Your task to perform on an android device: Search for sushi restaurants on Maps Image 0: 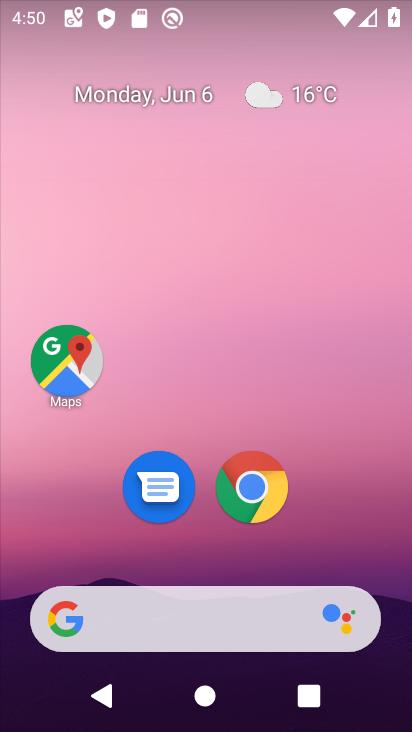
Step 0: click (73, 367)
Your task to perform on an android device: Search for sushi restaurants on Maps Image 1: 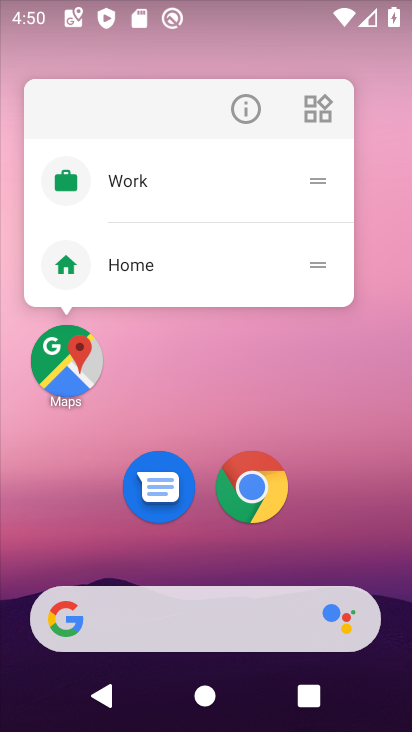
Step 1: click (73, 367)
Your task to perform on an android device: Search for sushi restaurants on Maps Image 2: 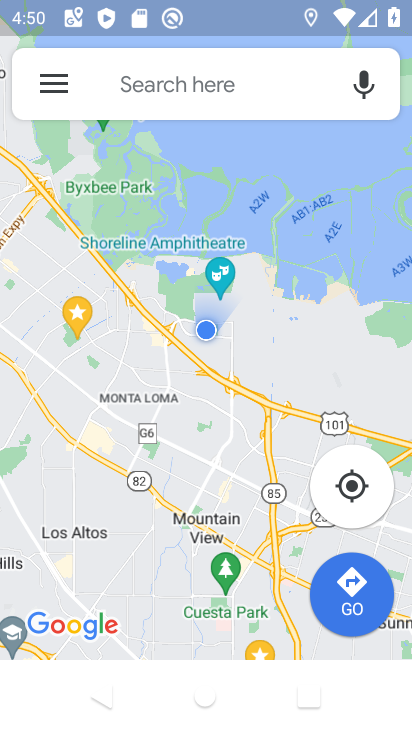
Step 2: click (199, 96)
Your task to perform on an android device: Search for sushi restaurants on Maps Image 3: 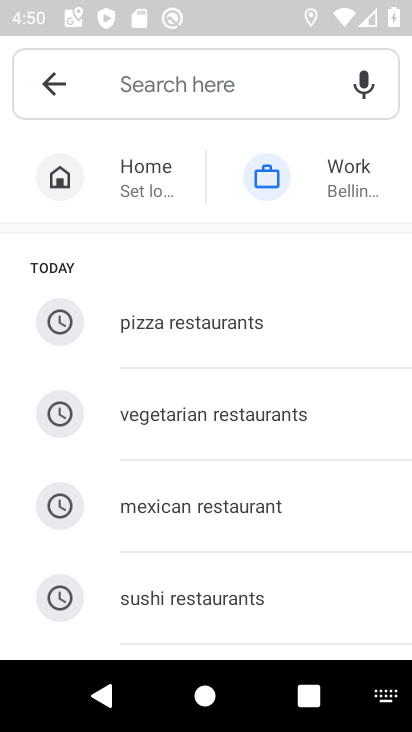
Step 3: click (219, 583)
Your task to perform on an android device: Search for sushi restaurants on Maps Image 4: 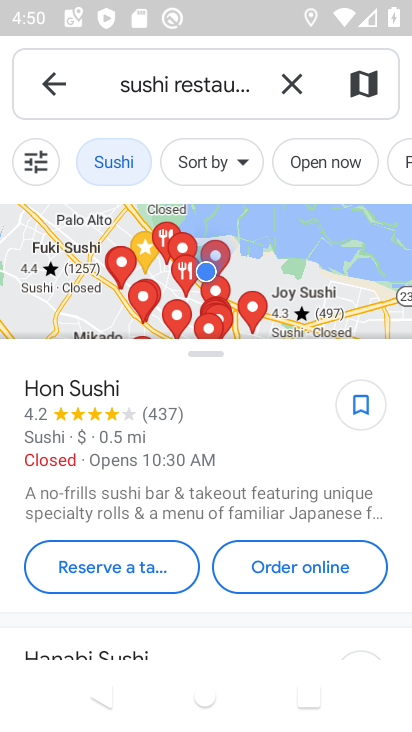
Step 4: task complete